Your task to perform on an android device: snooze an email in the gmail app Image 0: 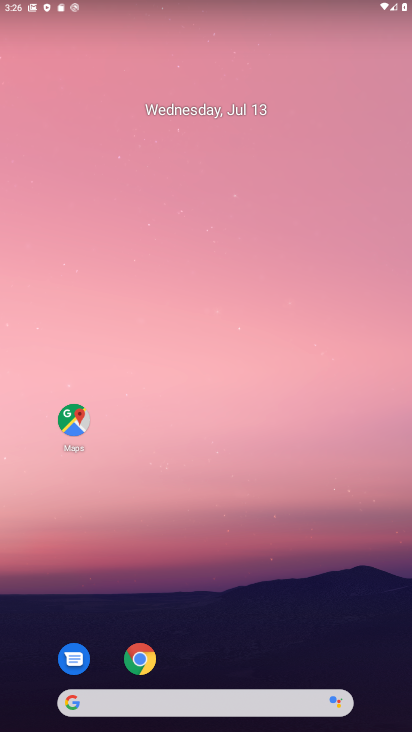
Step 0: press home button
Your task to perform on an android device: snooze an email in the gmail app Image 1: 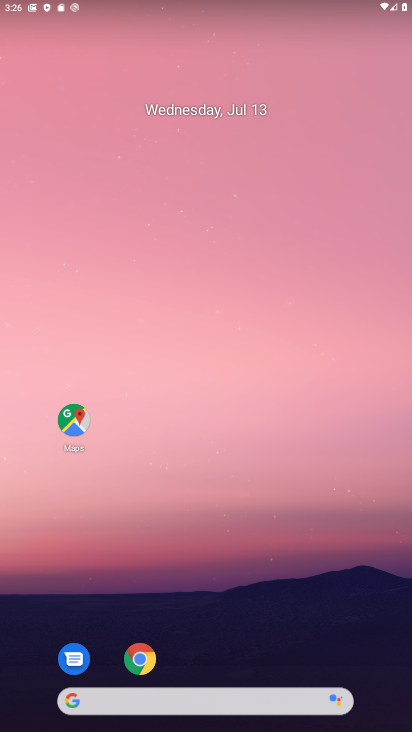
Step 1: drag from (304, 325) to (328, 225)
Your task to perform on an android device: snooze an email in the gmail app Image 2: 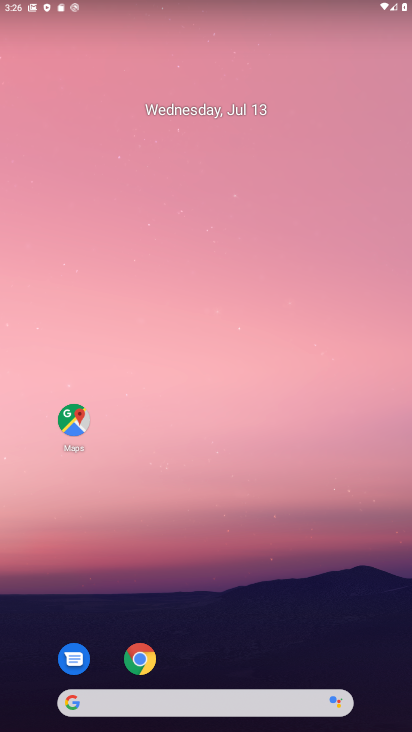
Step 2: drag from (225, 649) to (285, 119)
Your task to perform on an android device: snooze an email in the gmail app Image 3: 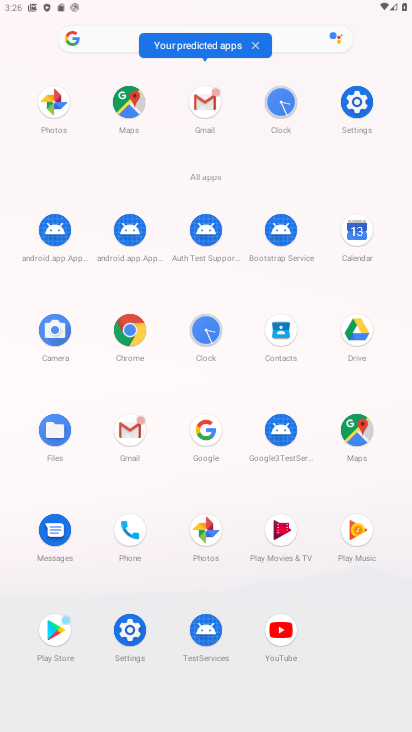
Step 3: click (126, 426)
Your task to perform on an android device: snooze an email in the gmail app Image 4: 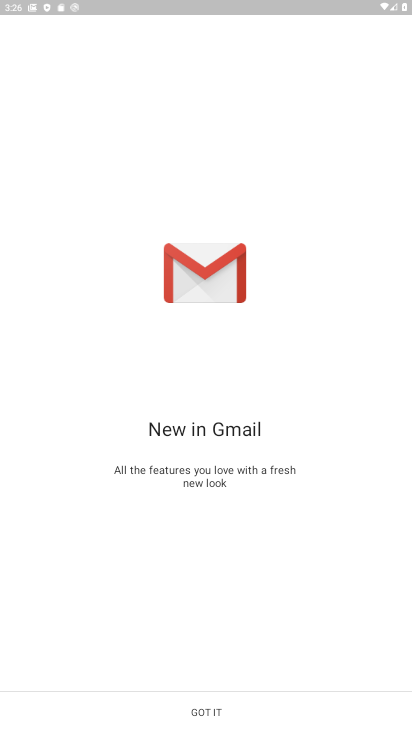
Step 4: click (206, 713)
Your task to perform on an android device: snooze an email in the gmail app Image 5: 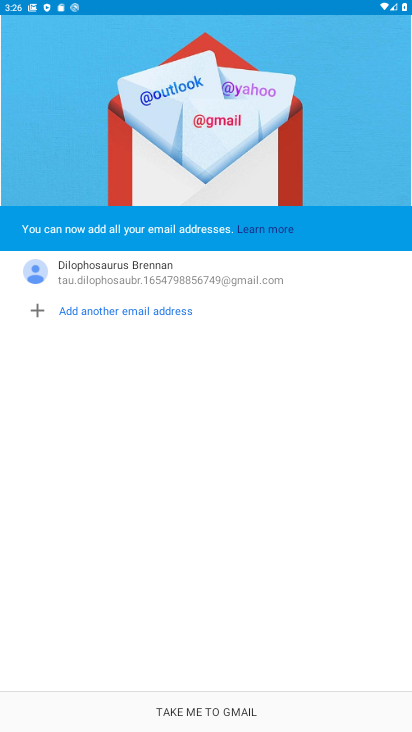
Step 5: click (206, 717)
Your task to perform on an android device: snooze an email in the gmail app Image 6: 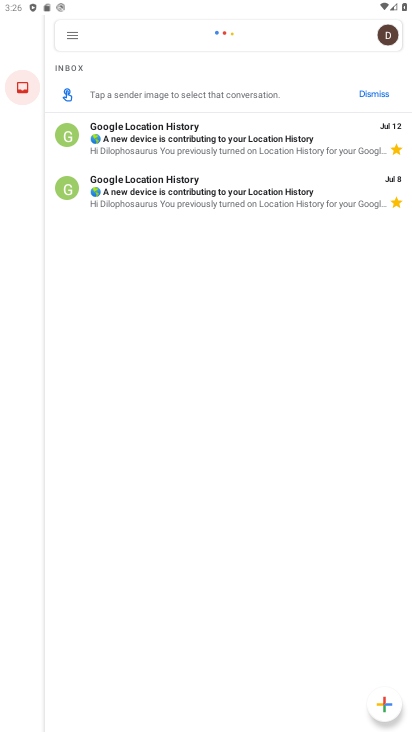
Step 6: click (65, 129)
Your task to perform on an android device: snooze an email in the gmail app Image 7: 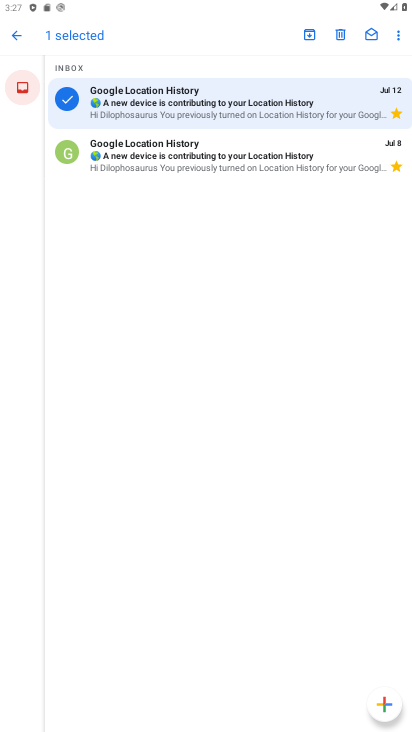
Step 7: click (399, 35)
Your task to perform on an android device: snooze an email in the gmail app Image 8: 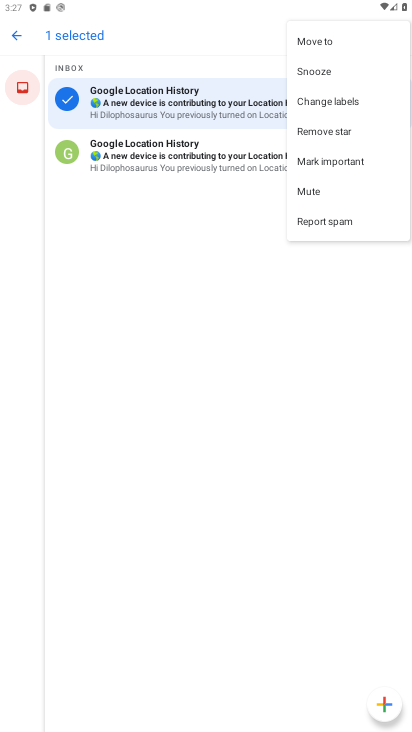
Step 8: click (307, 68)
Your task to perform on an android device: snooze an email in the gmail app Image 9: 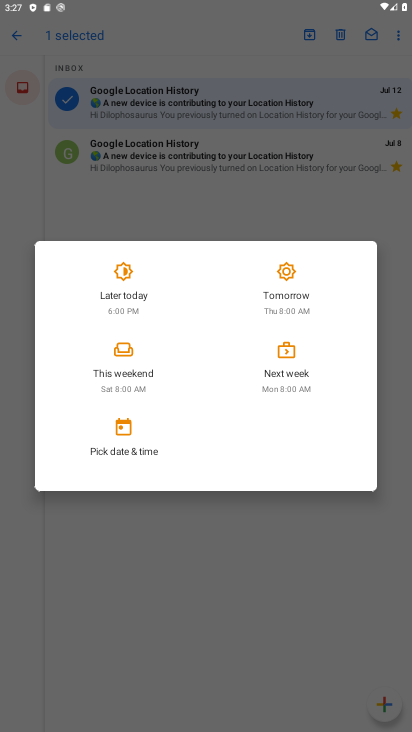
Step 9: click (289, 362)
Your task to perform on an android device: snooze an email in the gmail app Image 10: 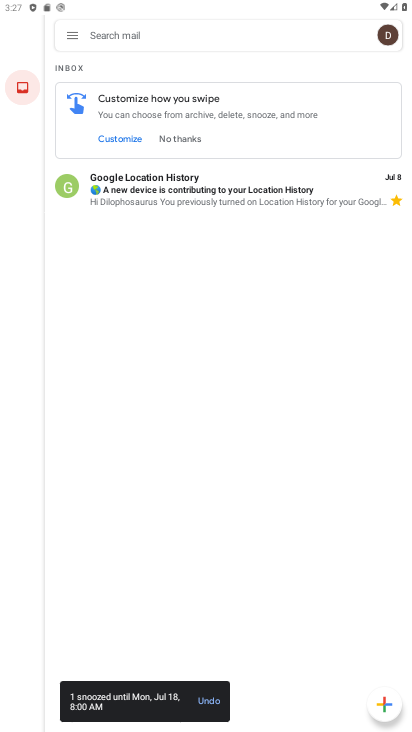
Step 10: task complete